Your task to perform on an android device: Clear the shopping cart on newegg.com. Search for "panasonic triple a" on newegg.com, select the first entry, add it to the cart, then select checkout. Image 0: 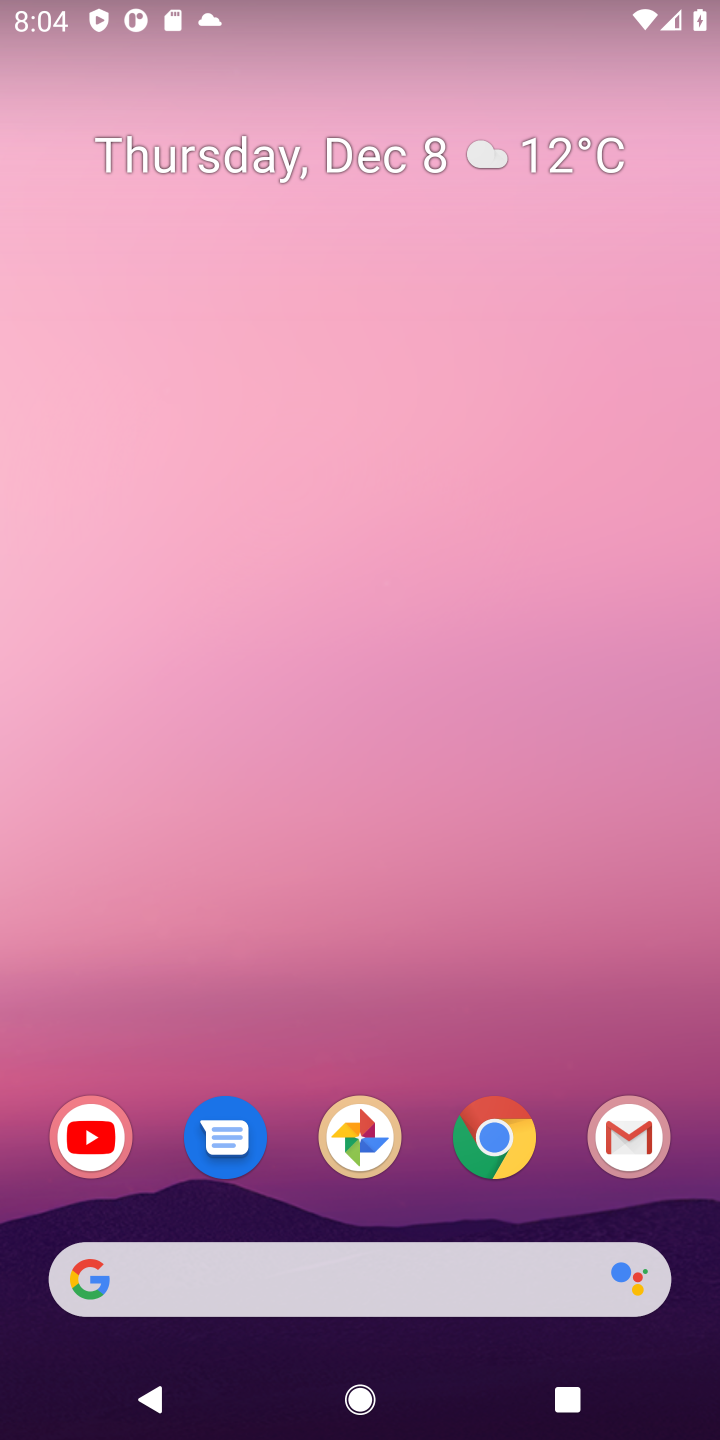
Step 0: click (455, 1157)
Your task to perform on an android device: Clear the shopping cart on newegg.com. Search for "panasonic triple a" on newegg.com, select the first entry, add it to the cart, then select checkout. Image 1: 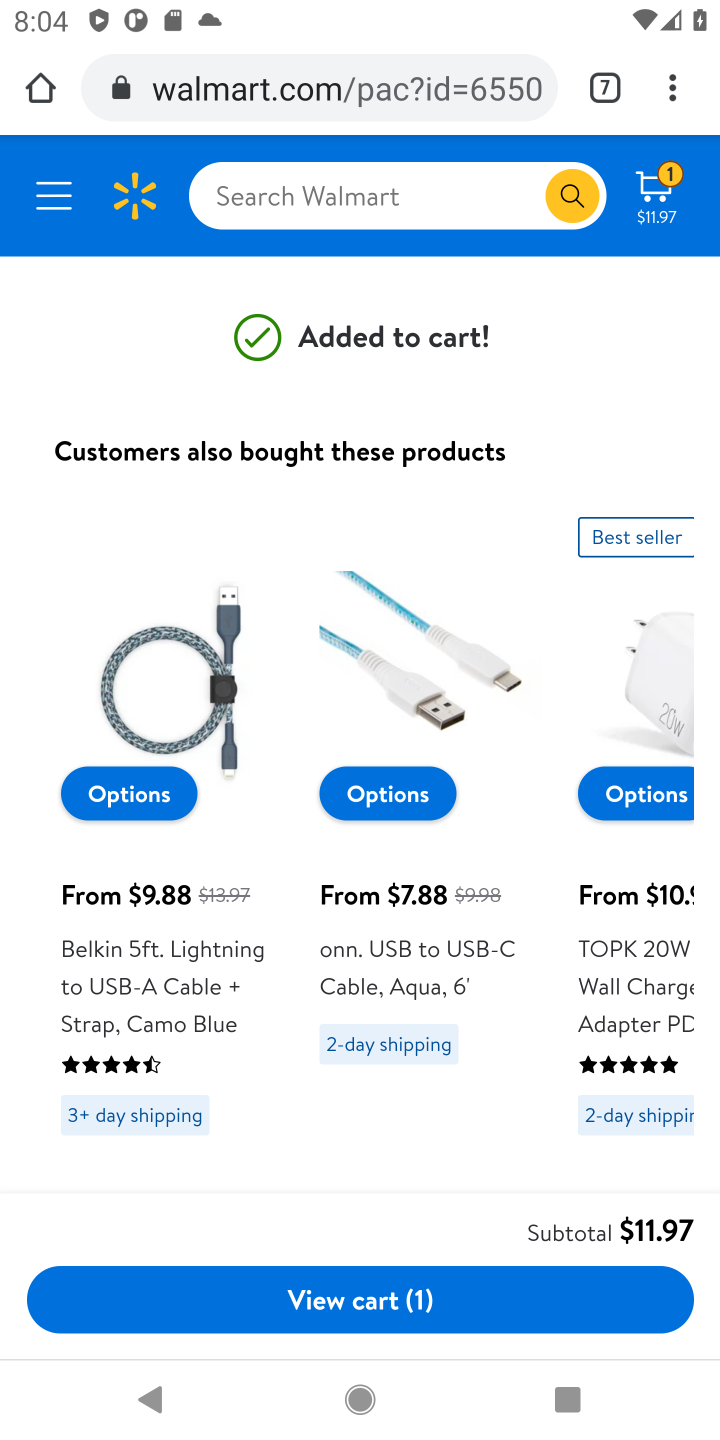
Step 1: click (605, 91)
Your task to perform on an android device: Clear the shopping cart on newegg.com. Search for "panasonic triple a" on newegg.com, select the first entry, add it to the cart, then select checkout. Image 2: 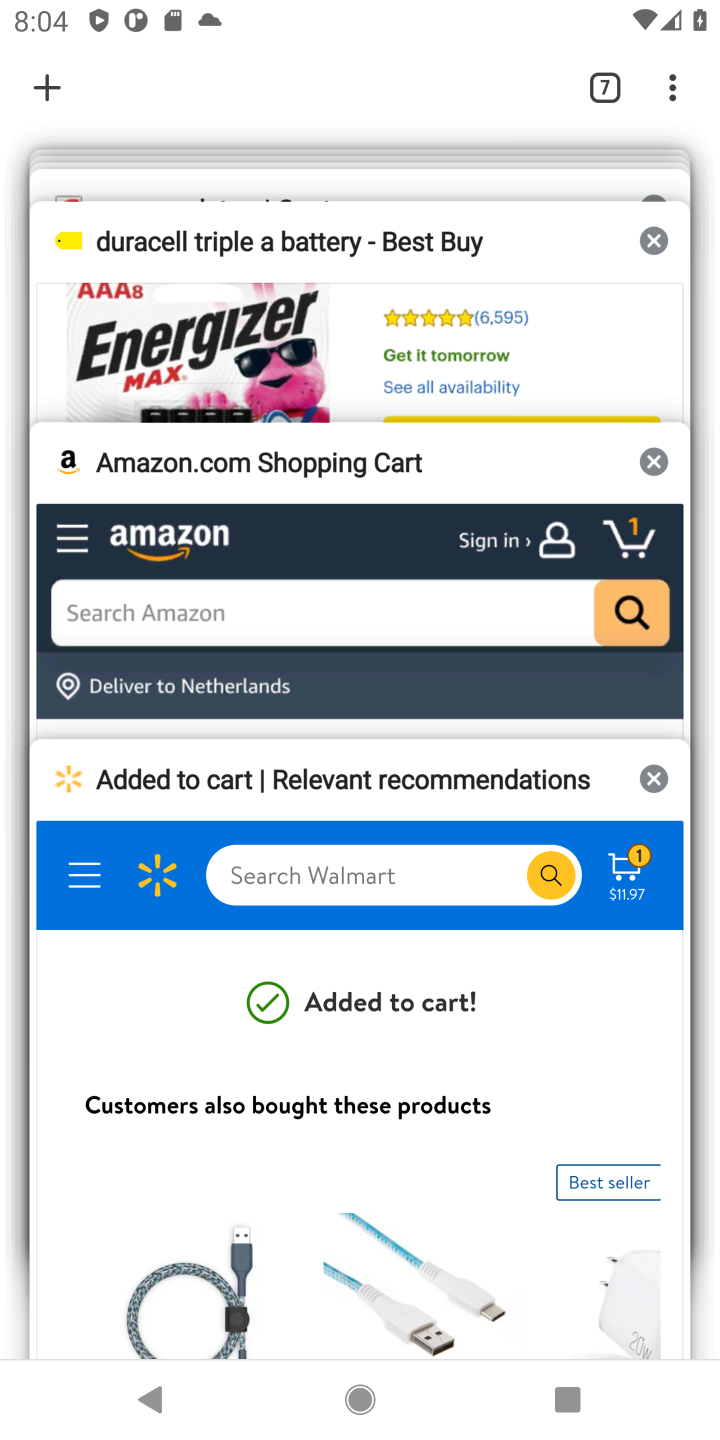
Step 2: drag from (391, 180) to (347, 661)
Your task to perform on an android device: Clear the shopping cart on newegg.com. Search for "panasonic triple a" on newegg.com, select the first entry, add it to the cart, then select checkout. Image 3: 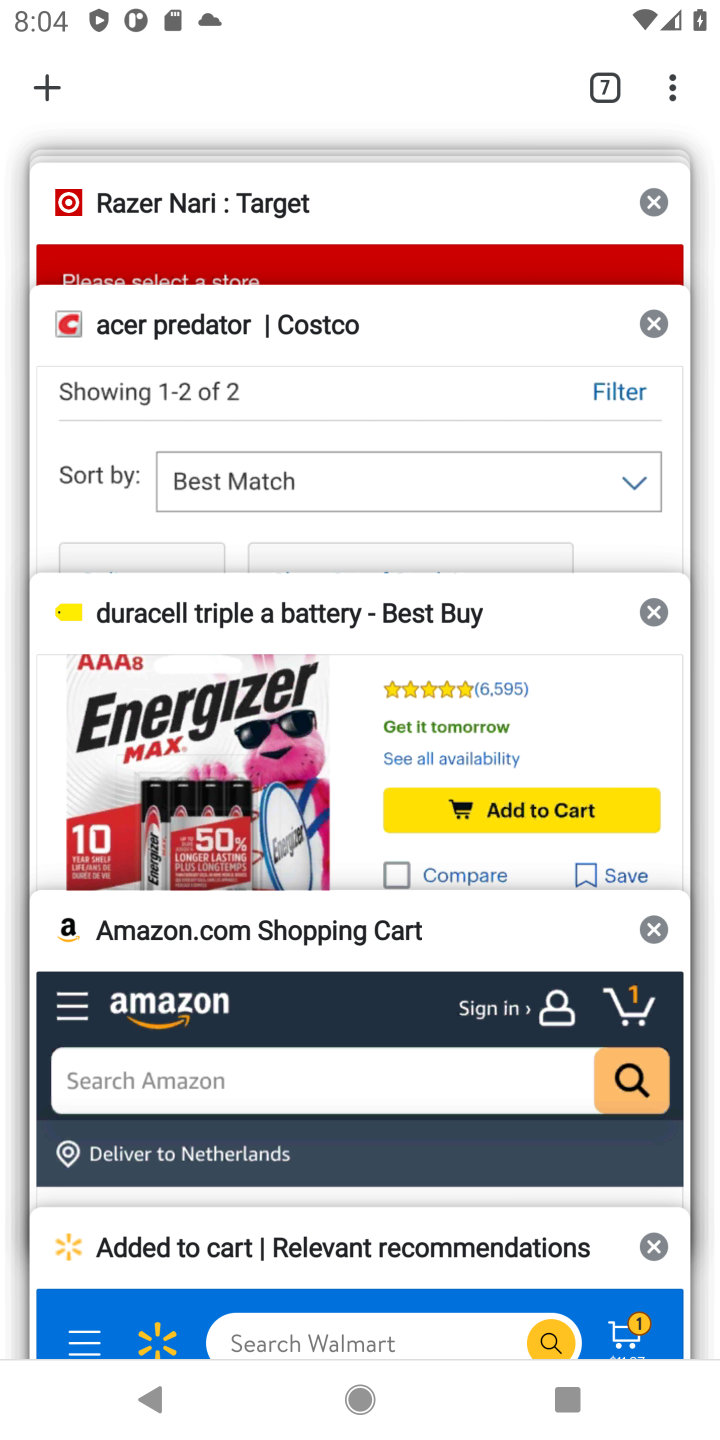
Step 3: drag from (443, 207) to (389, 438)
Your task to perform on an android device: Clear the shopping cart on newegg.com. Search for "panasonic triple a" on newegg.com, select the first entry, add it to the cart, then select checkout. Image 4: 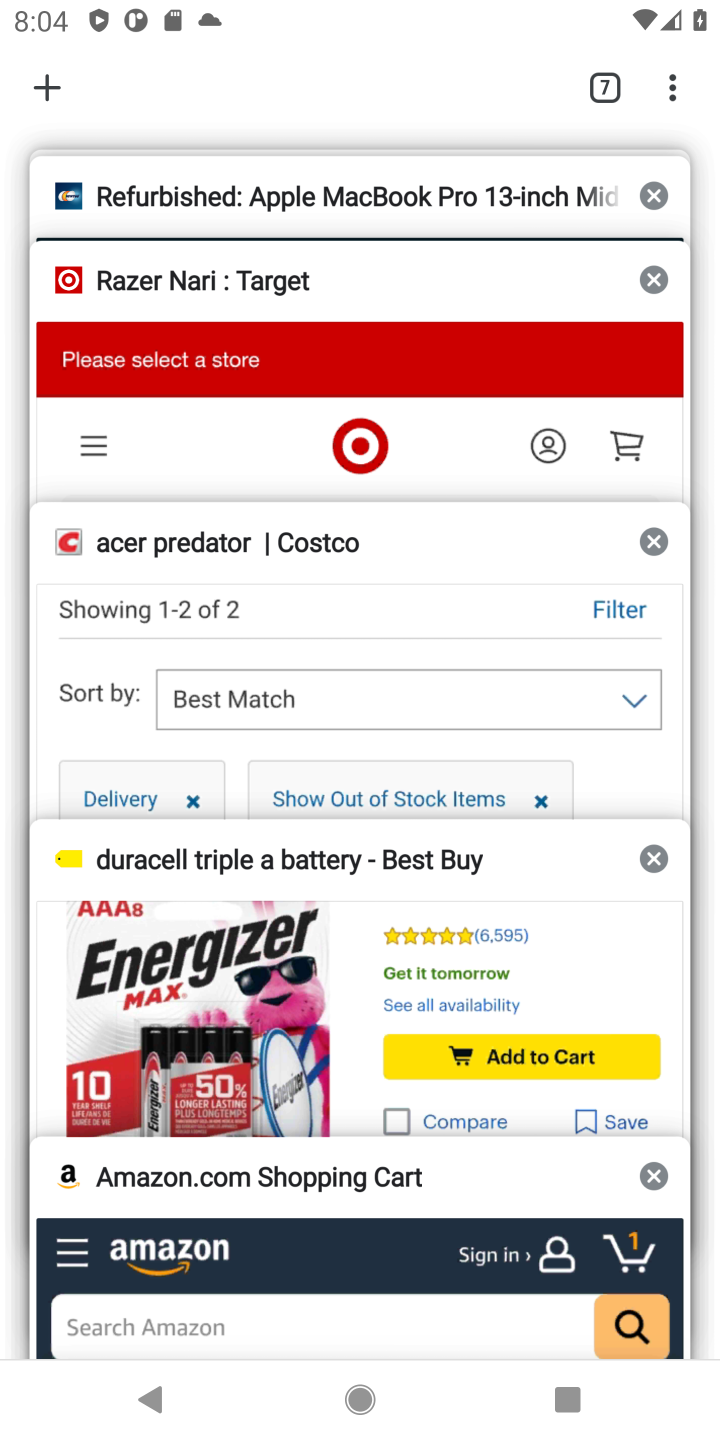
Step 4: click (428, 212)
Your task to perform on an android device: Clear the shopping cart on newegg.com. Search for "panasonic triple a" on newegg.com, select the first entry, add it to the cart, then select checkout. Image 5: 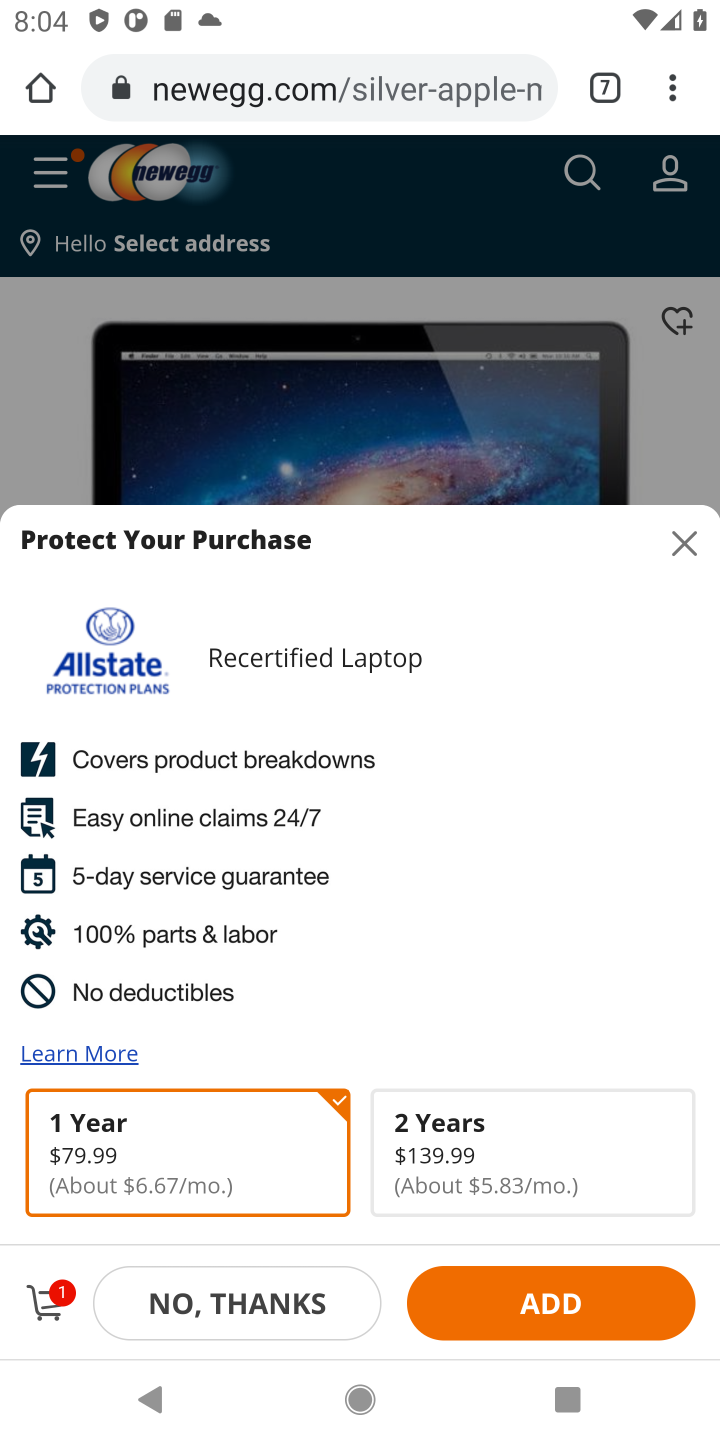
Step 5: click (680, 542)
Your task to perform on an android device: Clear the shopping cart on newegg.com. Search for "panasonic triple a" on newegg.com, select the first entry, add it to the cart, then select checkout. Image 6: 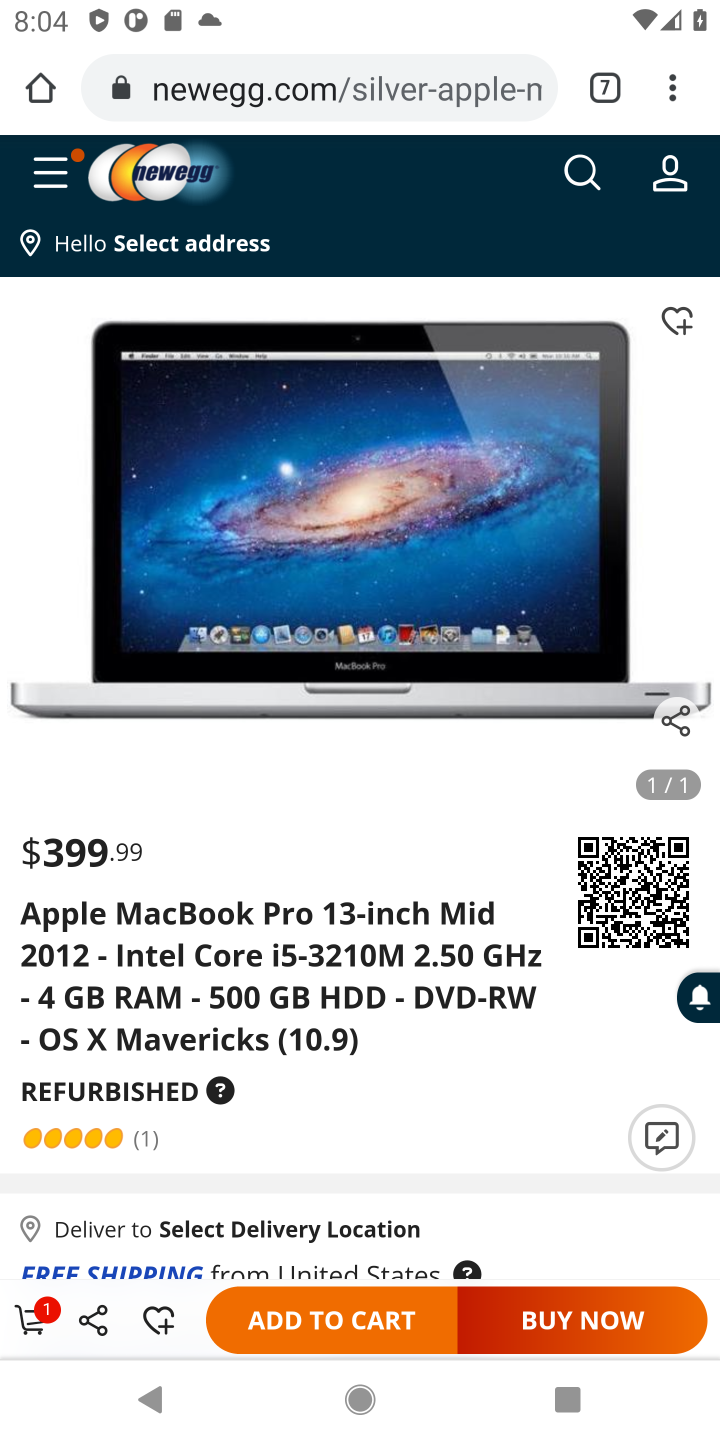
Step 6: click (45, 1322)
Your task to perform on an android device: Clear the shopping cart on newegg.com. Search for "panasonic triple a" on newegg.com, select the first entry, add it to the cart, then select checkout. Image 7: 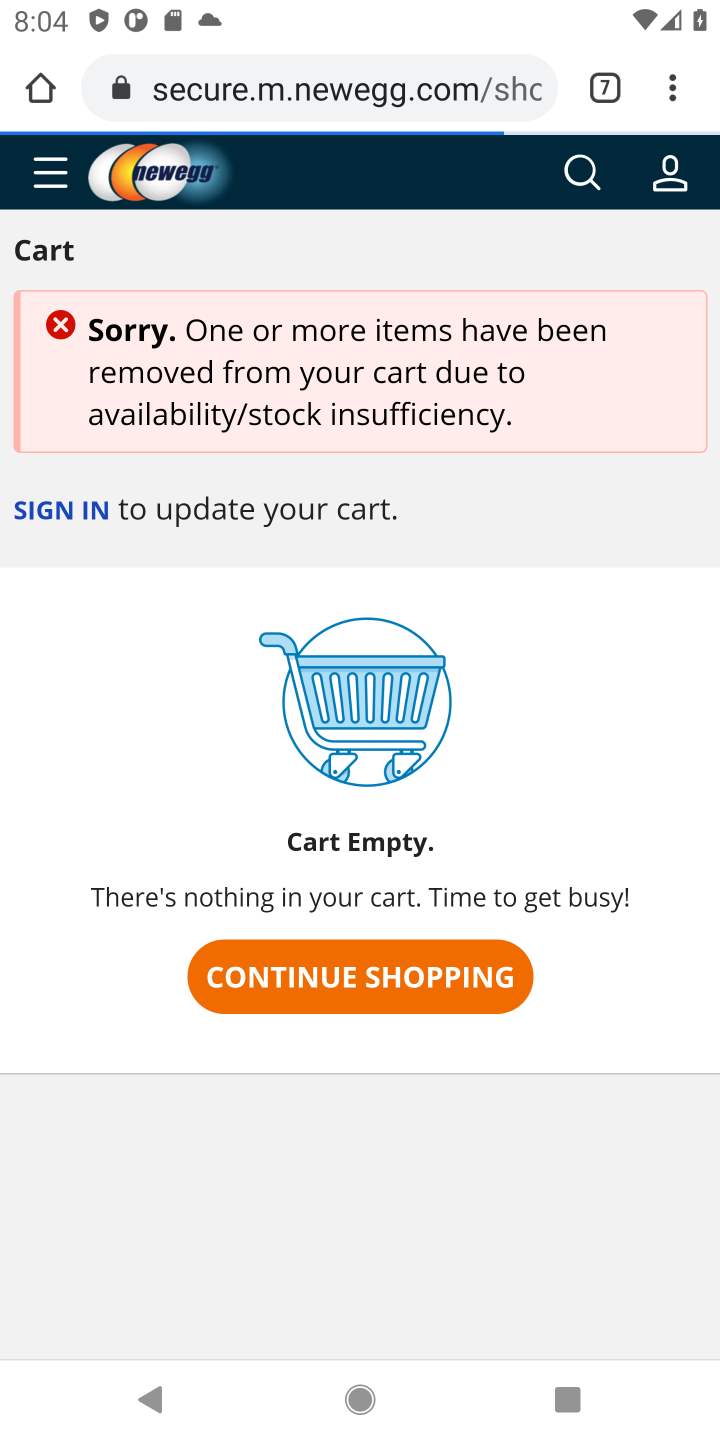
Step 7: click (45, 1322)
Your task to perform on an android device: Clear the shopping cart on newegg.com. Search for "panasonic triple a" on newegg.com, select the first entry, add it to the cart, then select checkout. Image 8: 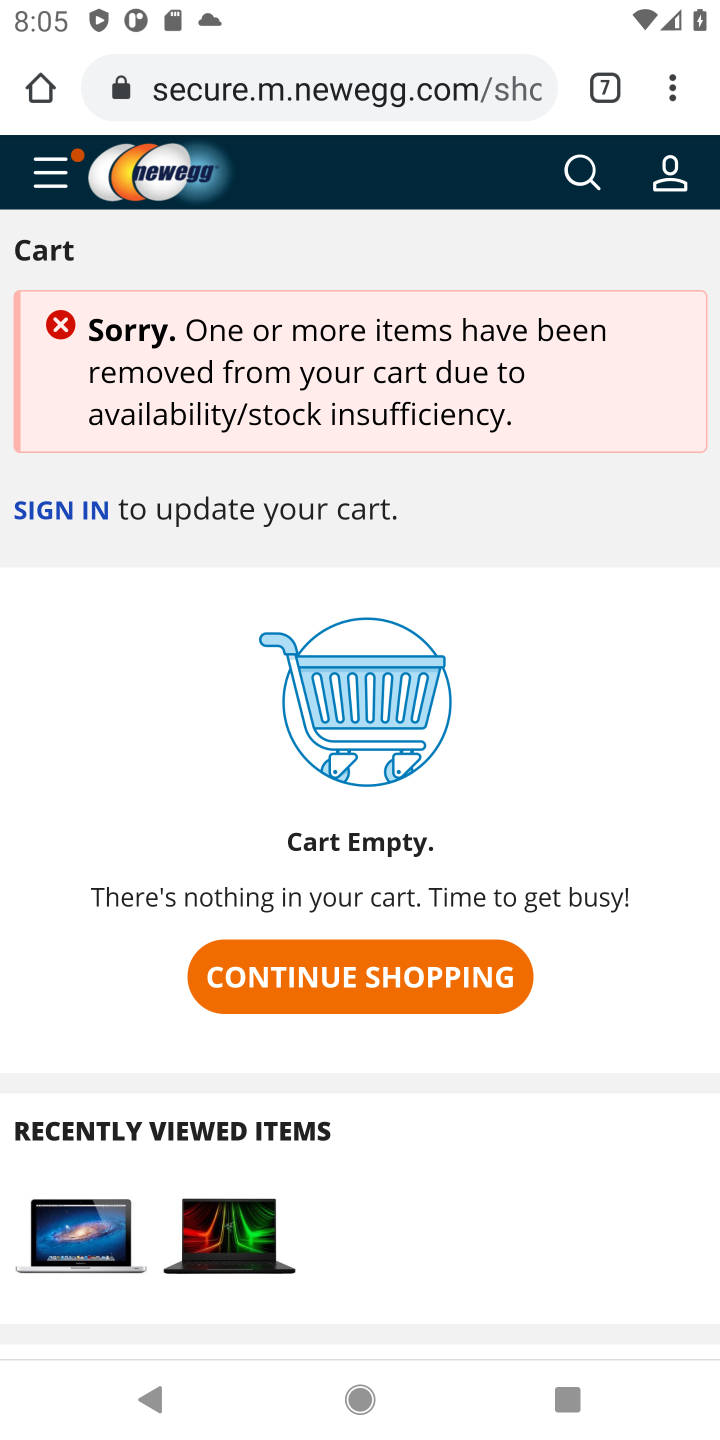
Step 8: click (68, 322)
Your task to perform on an android device: Clear the shopping cart on newegg.com. Search for "panasonic triple a" on newegg.com, select the first entry, add it to the cart, then select checkout. Image 9: 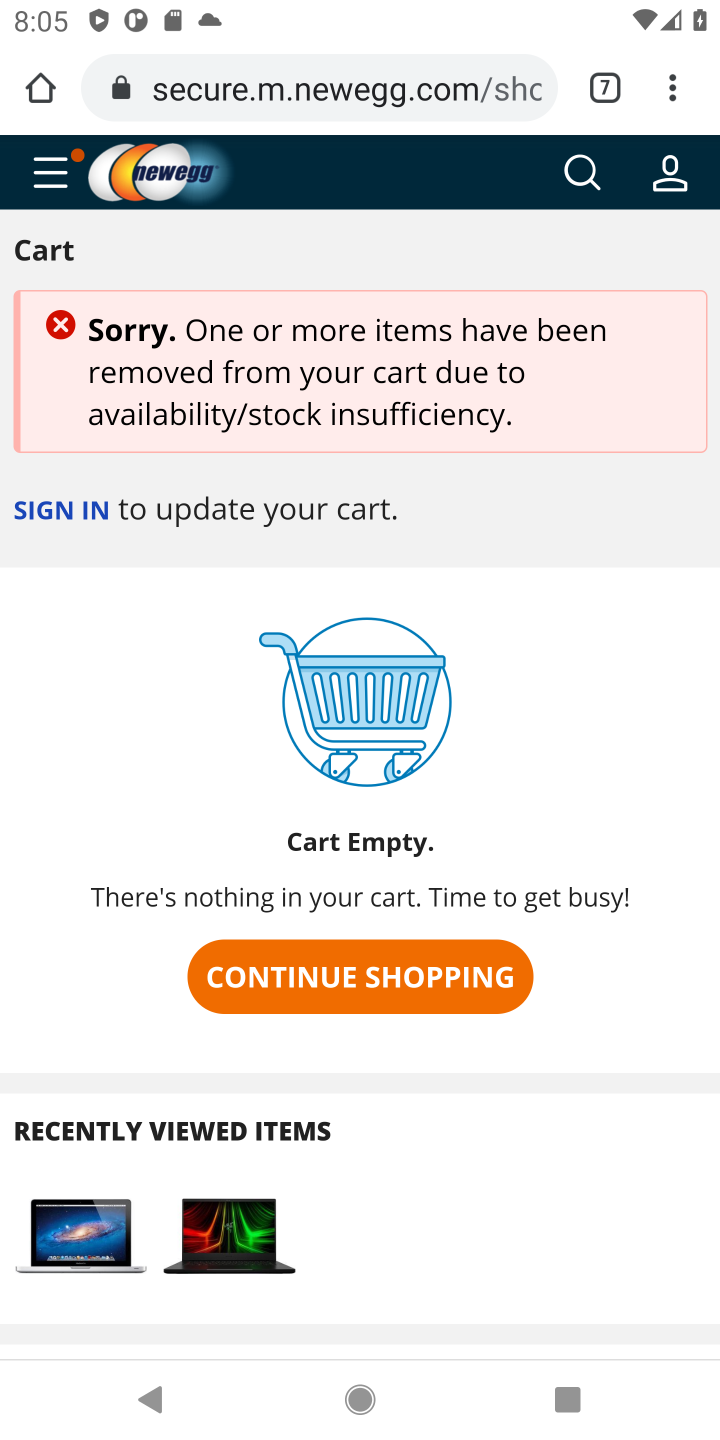
Step 9: click (584, 173)
Your task to perform on an android device: Clear the shopping cart on newegg.com. Search for "panasonic triple a" on newegg.com, select the first entry, add it to the cart, then select checkout. Image 10: 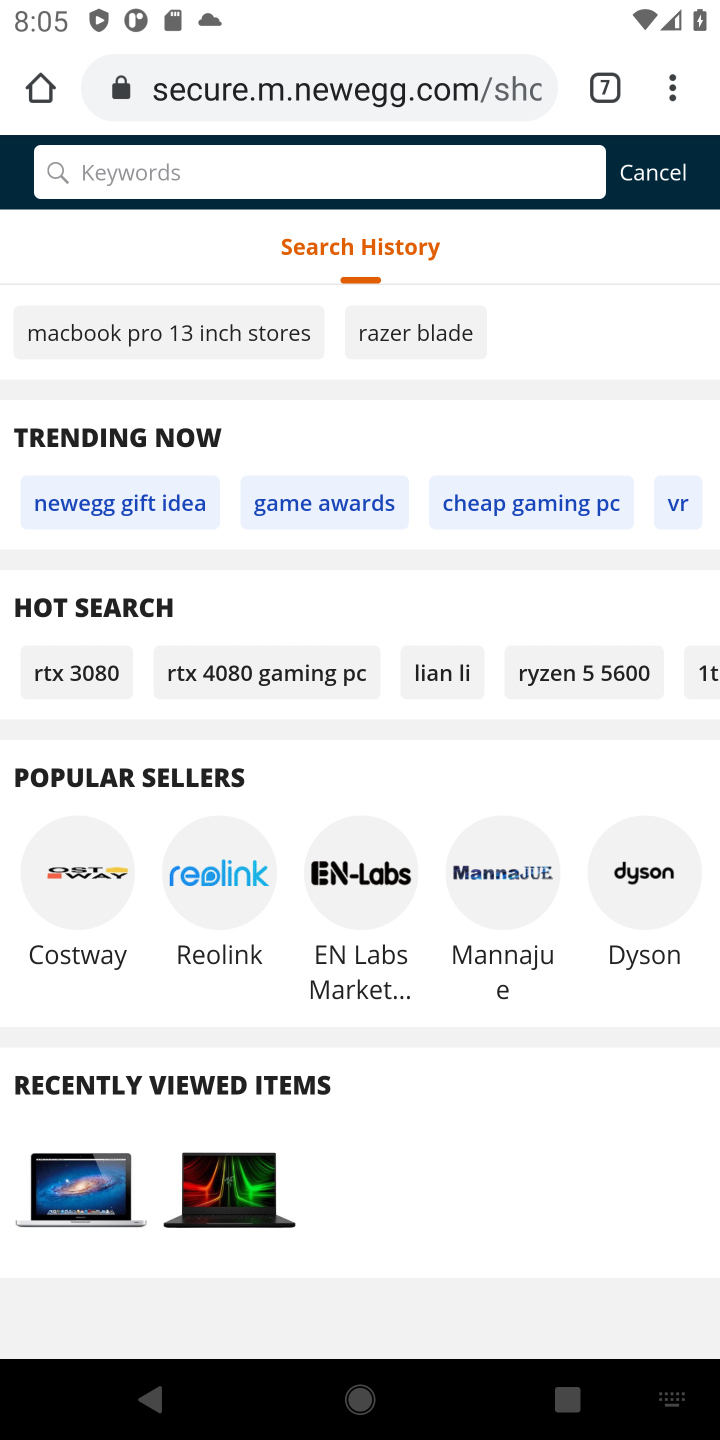
Step 10: type "panasonic triple a batterey"
Your task to perform on an android device: Clear the shopping cart on newegg.com. Search for "panasonic triple a" on newegg.com, select the first entry, add it to the cart, then select checkout. Image 11: 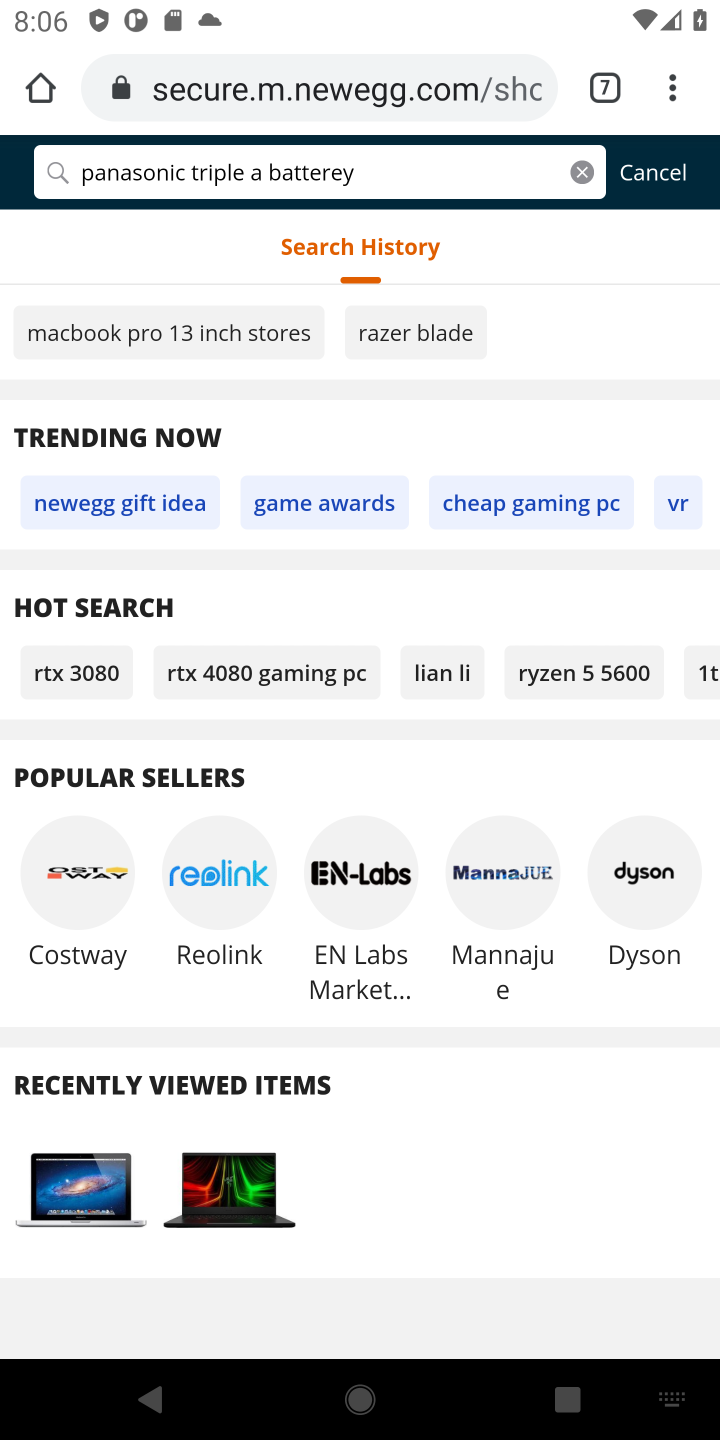
Step 11: drag from (542, 1185) to (596, 385)
Your task to perform on an android device: Clear the shopping cart on newegg.com. Search for "panasonic triple a" on newegg.com, select the first entry, add it to the cart, then select checkout. Image 12: 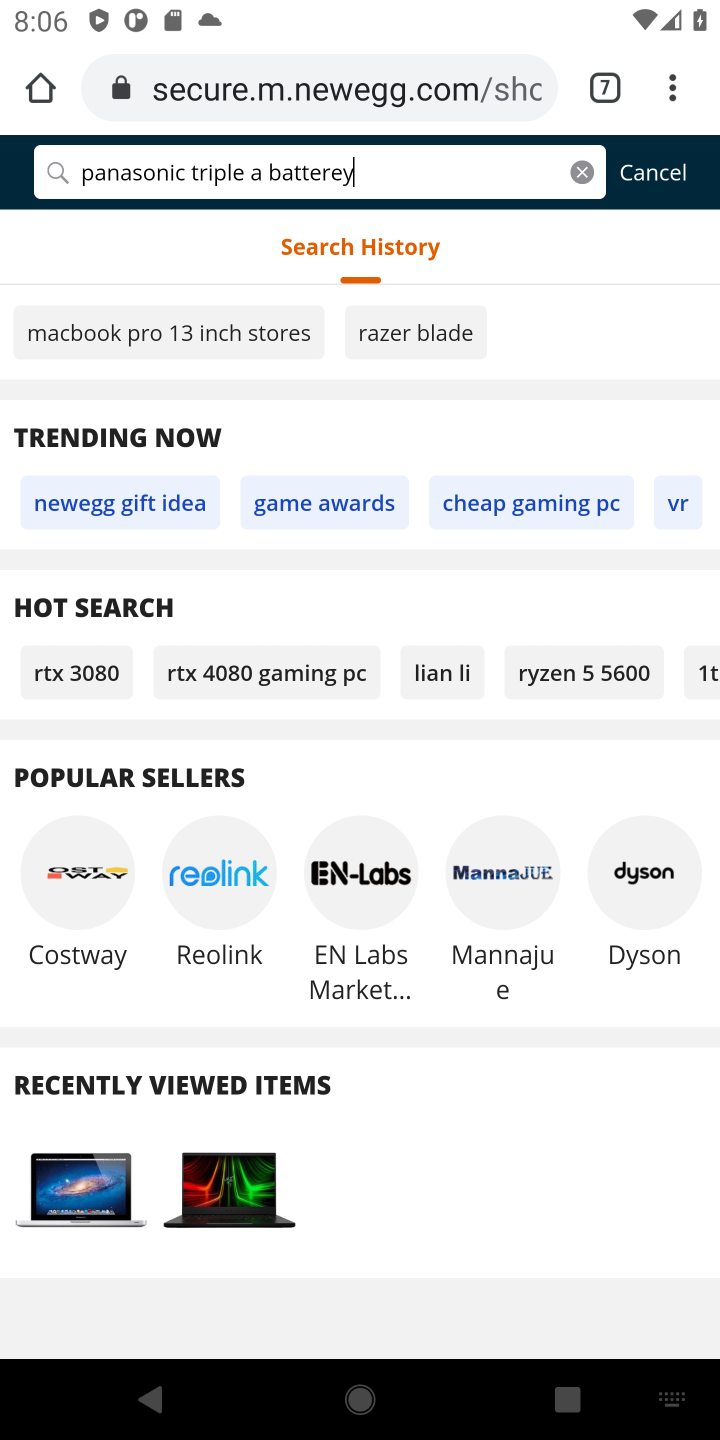
Step 12: drag from (429, 1153) to (464, 382)
Your task to perform on an android device: Clear the shopping cart on newegg.com. Search for "panasonic triple a" on newegg.com, select the first entry, add it to the cart, then select checkout. Image 13: 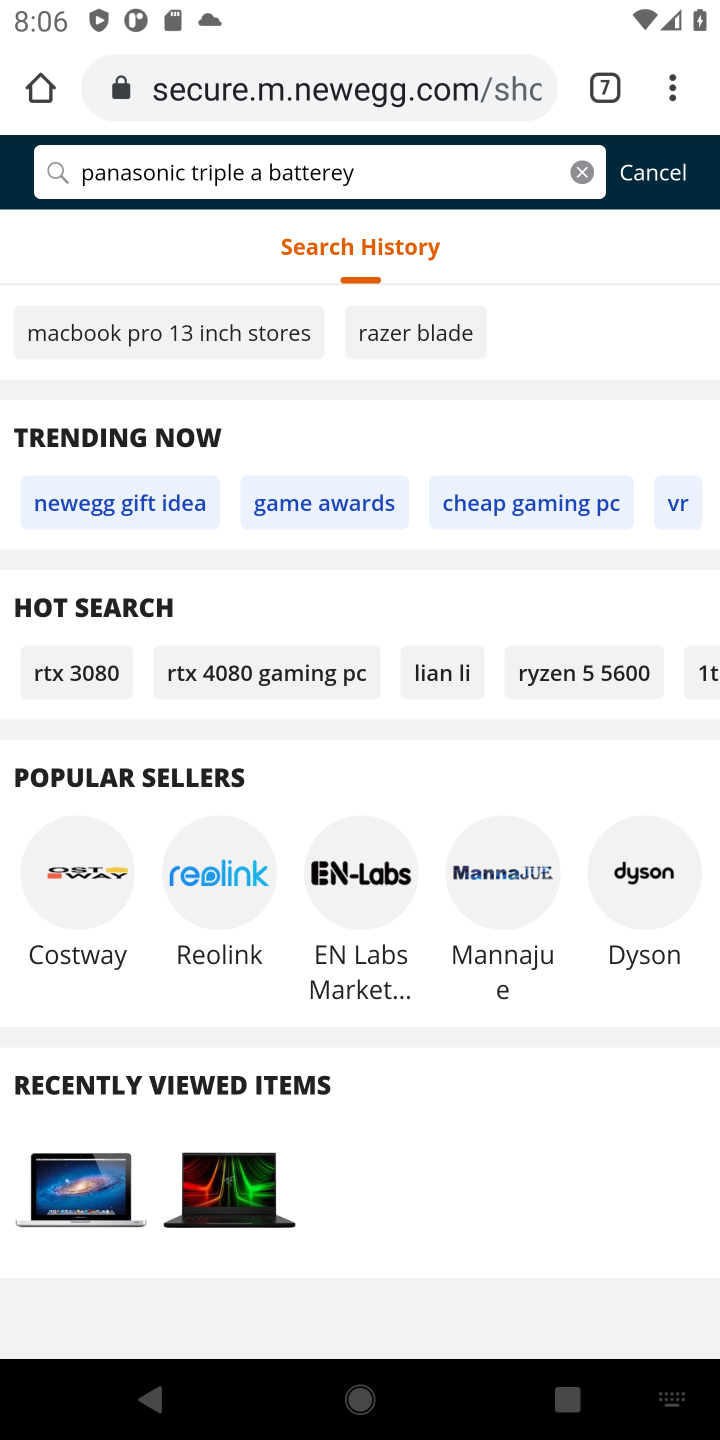
Step 13: press enter
Your task to perform on an android device: Clear the shopping cart on newegg.com. Search for "panasonic triple a" on newegg.com, select the first entry, add it to the cart, then select checkout. Image 14: 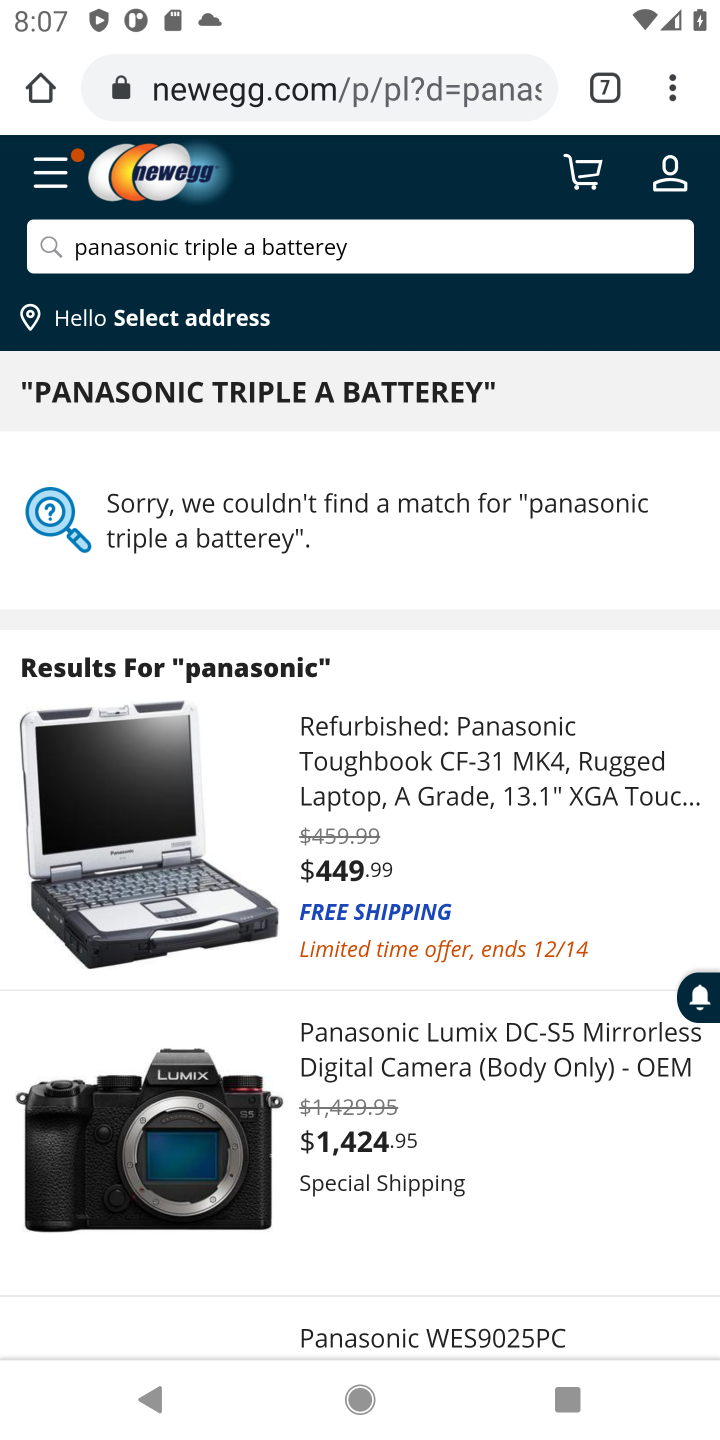
Step 14: task complete